Your task to perform on an android device: turn off smart reply in the gmail app Image 0: 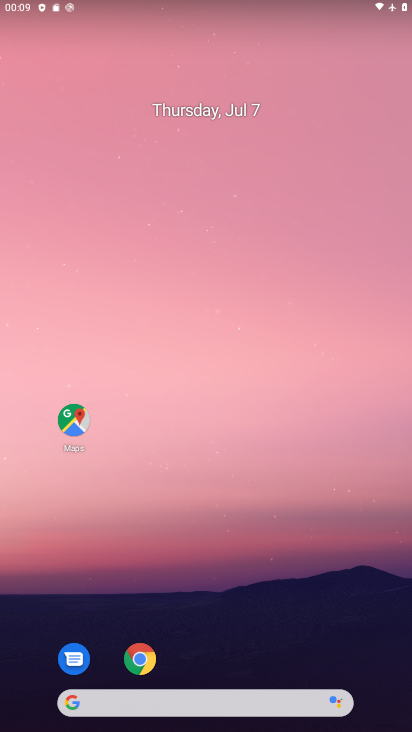
Step 0: drag from (193, 725) to (96, 151)
Your task to perform on an android device: turn off smart reply in the gmail app Image 1: 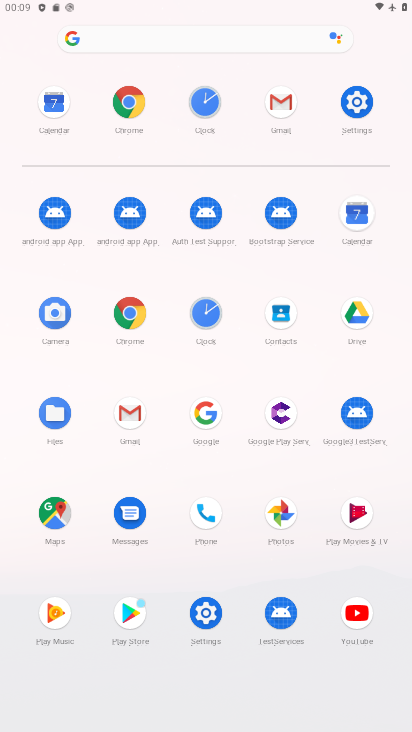
Step 1: click (129, 412)
Your task to perform on an android device: turn off smart reply in the gmail app Image 2: 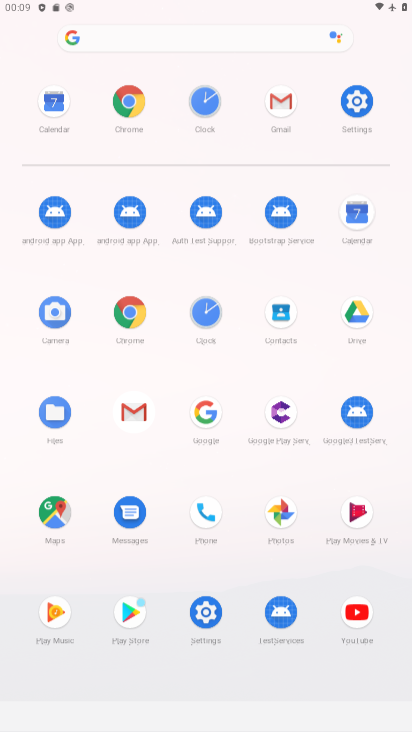
Step 2: click (134, 412)
Your task to perform on an android device: turn off smart reply in the gmail app Image 3: 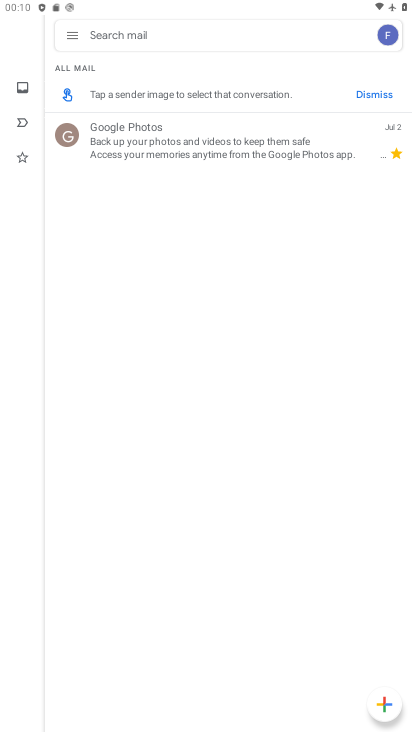
Step 3: click (20, 87)
Your task to perform on an android device: turn off smart reply in the gmail app Image 4: 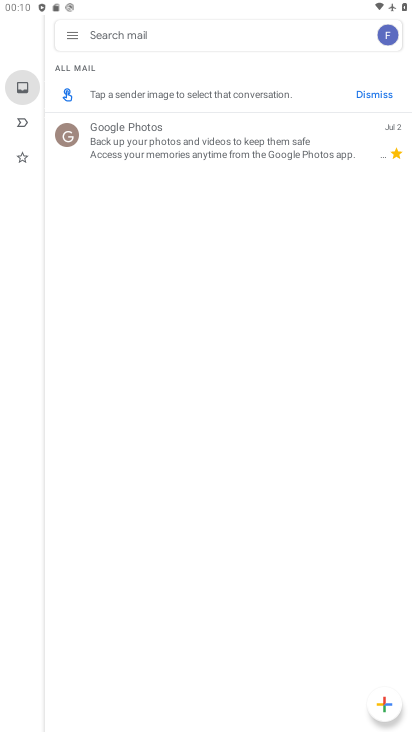
Step 4: click (27, 87)
Your task to perform on an android device: turn off smart reply in the gmail app Image 5: 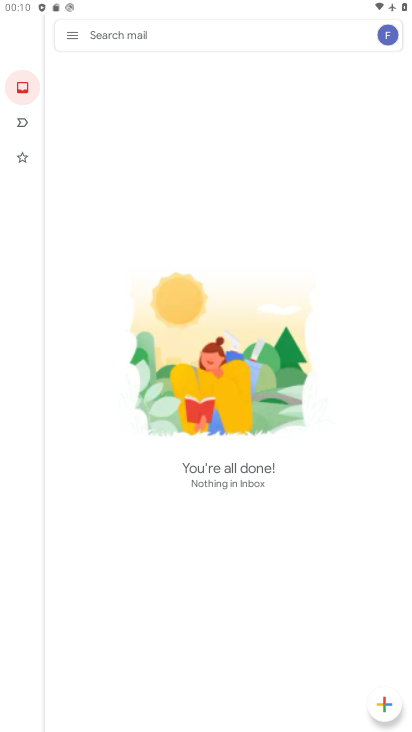
Step 5: click (69, 41)
Your task to perform on an android device: turn off smart reply in the gmail app Image 6: 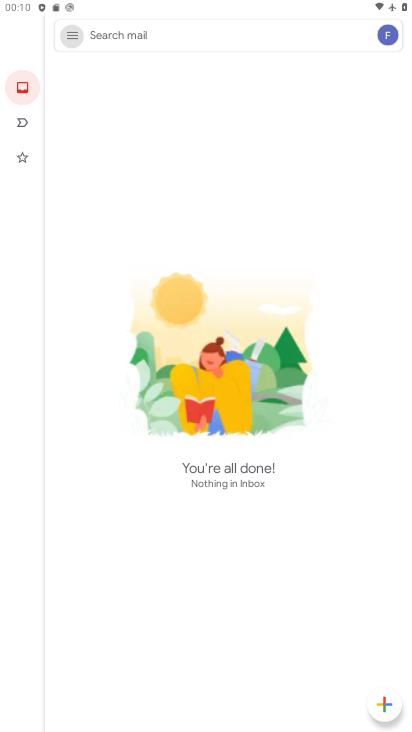
Step 6: click (78, 41)
Your task to perform on an android device: turn off smart reply in the gmail app Image 7: 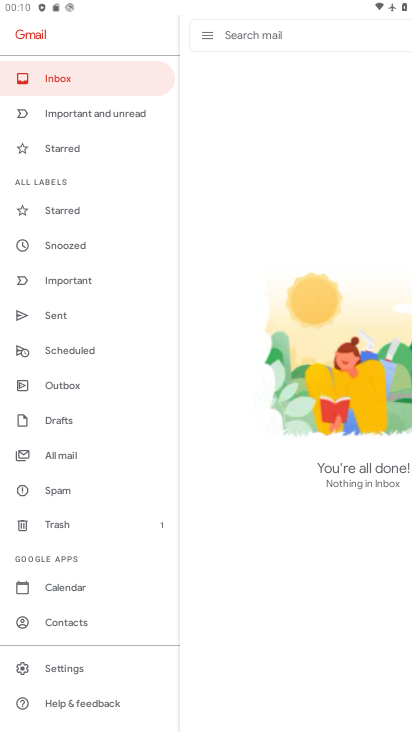
Step 7: drag from (94, 347) to (73, 193)
Your task to perform on an android device: turn off smart reply in the gmail app Image 8: 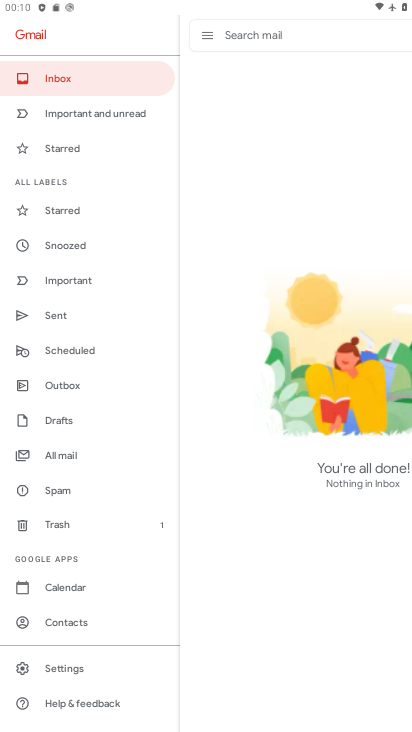
Step 8: click (70, 668)
Your task to perform on an android device: turn off smart reply in the gmail app Image 9: 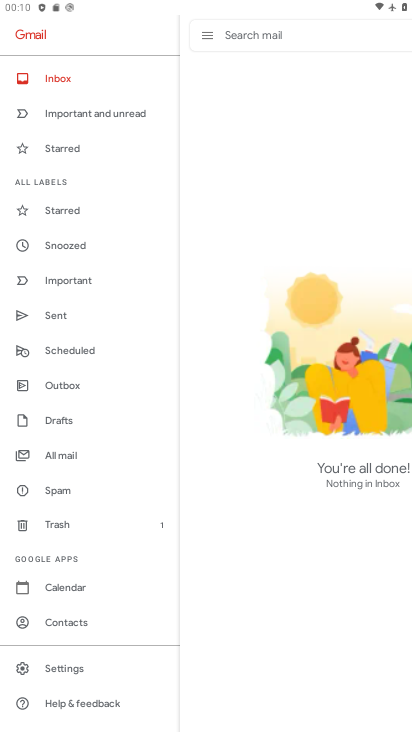
Step 9: click (70, 672)
Your task to perform on an android device: turn off smart reply in the gmail app Image 10: 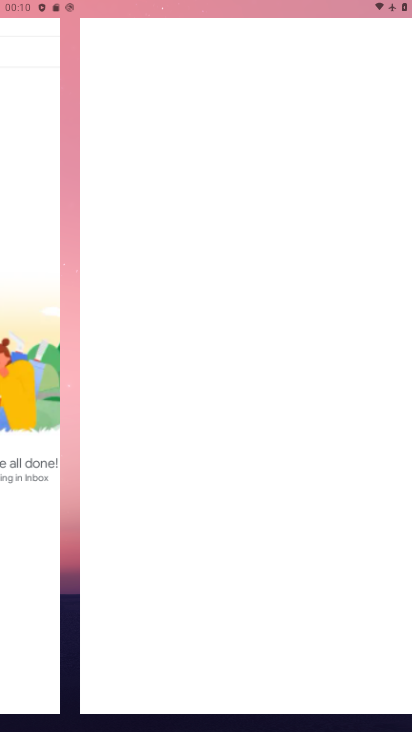
Step 10: click (70, 671)
Your task to perform on an android device: turn off smart reply in the gmail app Image 11: 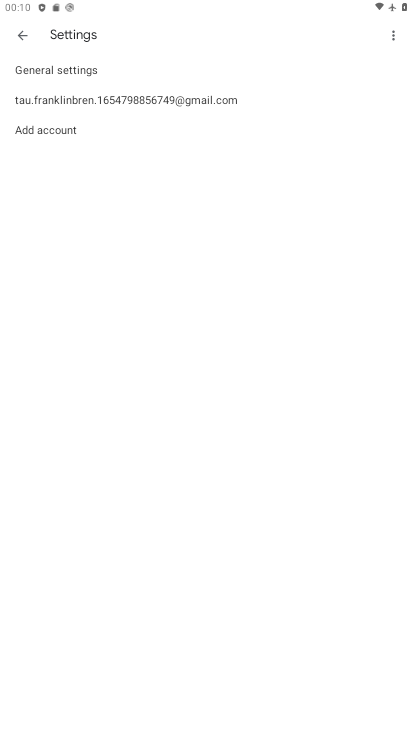
Step 11: click (107, 96)
Your task to perform on an android device: turn off smart reply in the gmail app Image 12: 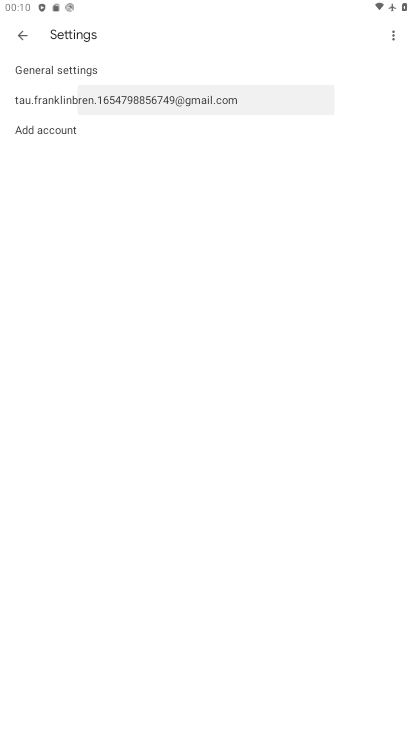
Step 12: click (109, 100)
Your task to perform on an android device: turn off smart reply in the gmail app Image 13: 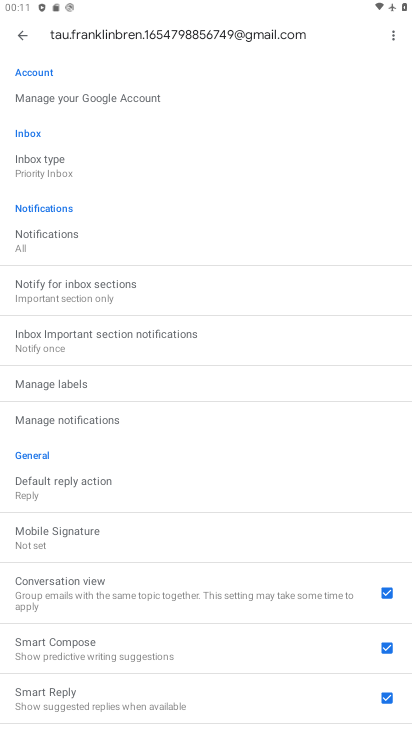
Step 13: drag from (111, 566) to (120, 273)
Your task to perform on an android device: turn off smart reply in the gmail app Image 14: 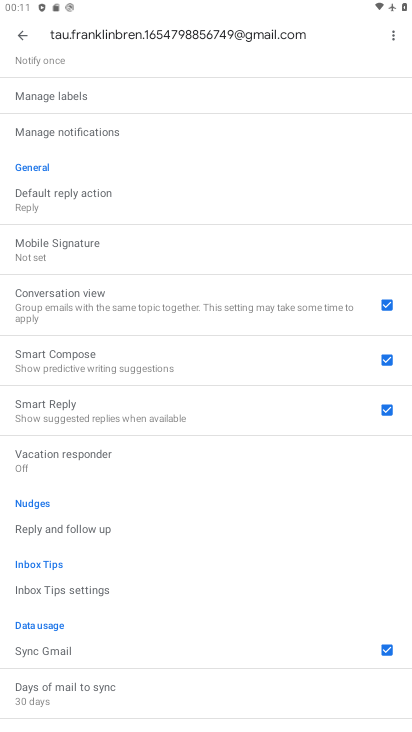
Step 14: click (63, 409)
Your task to perform on an android device: turn off smart reply in the gmail app Image 15: 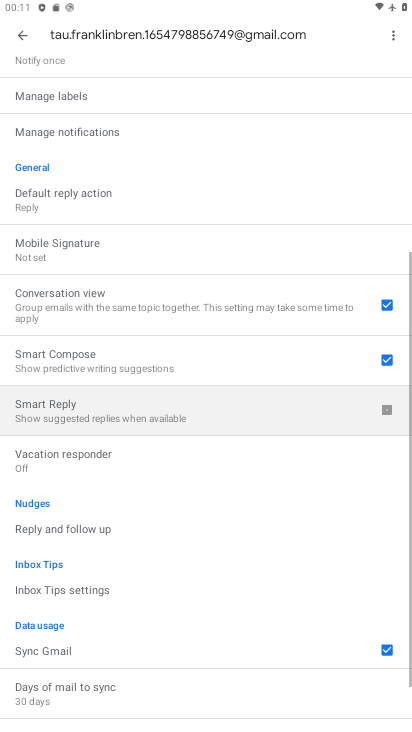
Step 15: click (62, 408)
Your task to perform on an android device: turn off smart reply in the gmail app Image 16: 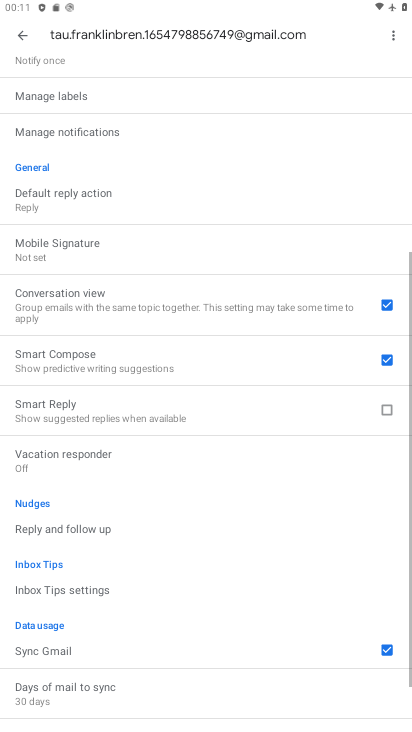
Step 16: click (62, 408)
Your task to perform on an android device: turn off smart reply in the gmail app Image 17: 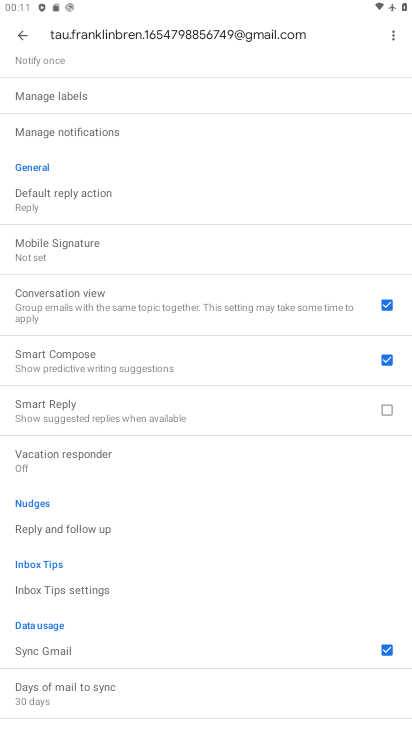
Step 17: click (392, 407)
Your task to perform on an android device: turn off smart reply in the gmail app Image 18: 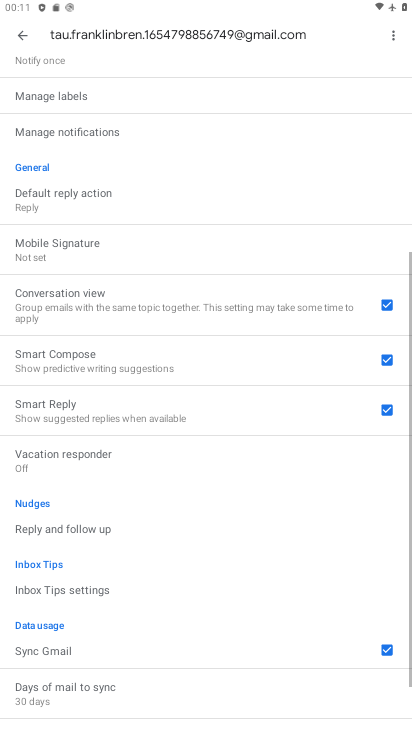
Step 18: click (390, 411)
Your task to perform on an android device: turn off smart reply in the gmail app Image 19: 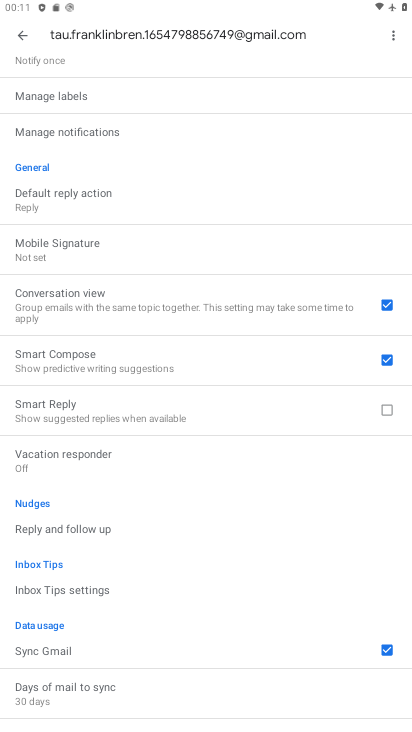
Step 19: task complete